Your task to perform on an android device: turn off notifications settings in the gmail app Image 0: 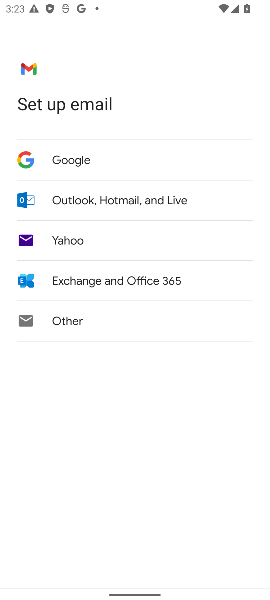
Step 0: press home button
Your task to perform on an android device: turn off notifications settings in the gmail app Image 1: 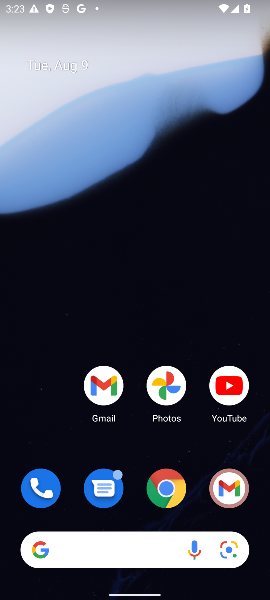
Step 1: click (231, 486)
Your task to perform on an android device: turn off notifications settings in the gmail app Image 2: 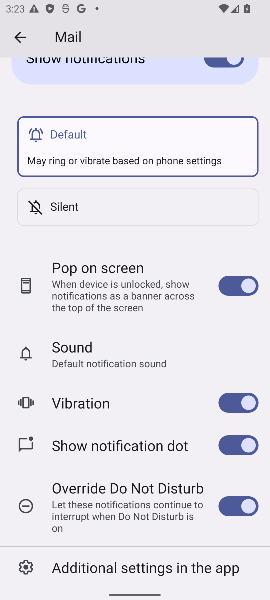
Step 2: click (234, 282)
Your task to perform on an android device: turn off notifications settings in the gmail app Image 3: 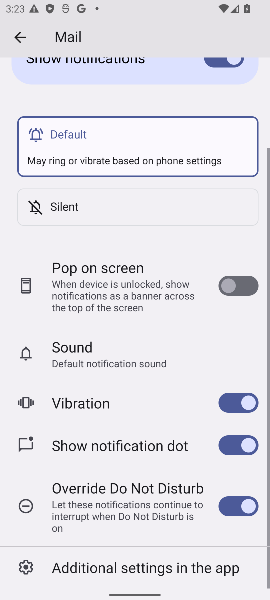
Step 3: click (235, 404)
Your task to perform on an android device: turn off notifications settings in the gmail app Image 4: 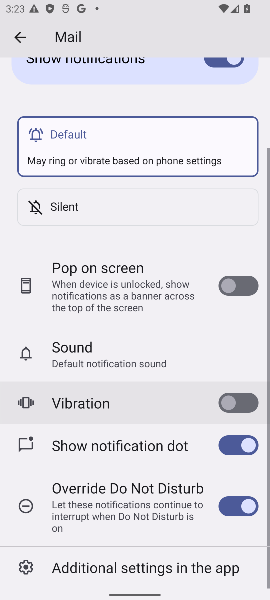
Step 4: click (238, 443)
Your task to perform on an android device: turn off notifications settings in the gmail app Image 5: 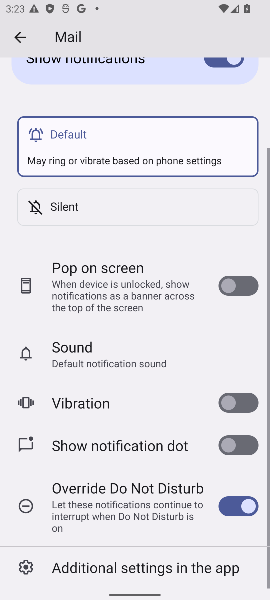
Step 5: click (238, 509)
Your task to perform on an android device: turn off notifications settings in the gmail app Image 6: 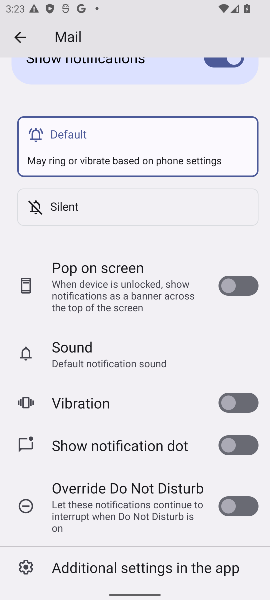
Step 6: task complete